Your task to perform on an android device: Open the Play Movies app and select the watchlist tab. Image 0: 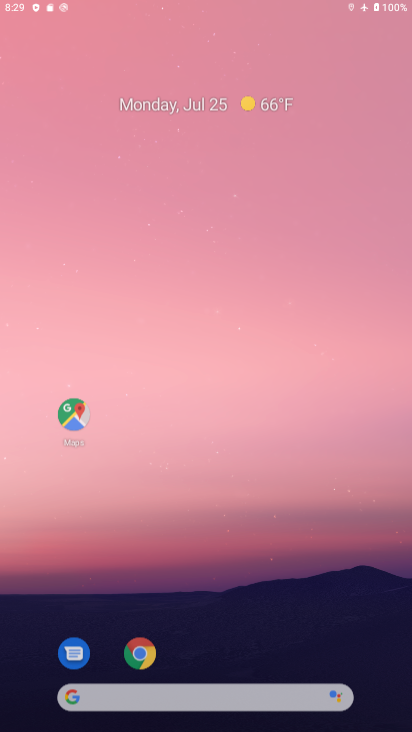
Step 0: click (122, 297)
Your task to perform on an android device: Open the Play Movies app and select the watchlist tab. Image 1: 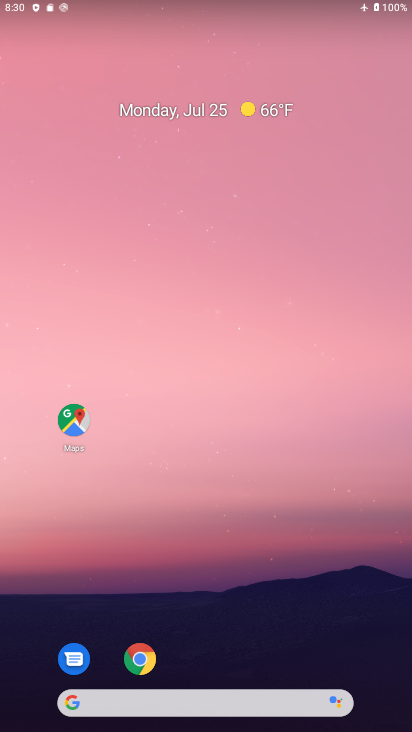
Step 1: drag from (219, 471) to (174, 134)
Your task to perform on an android device: Open the Play Movies app and select the watchlist tab. Image 2: 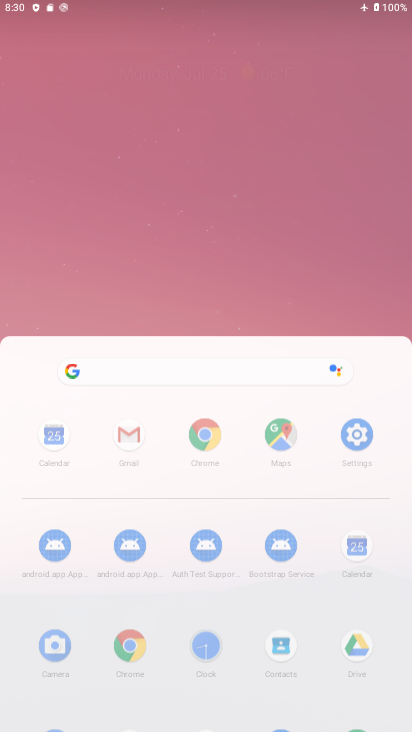
Step 2: drag from (254, 512) to (231, 142)
Your task to perform on an android device: Open the Play Movies app and select the watchlist tab. Image 3: 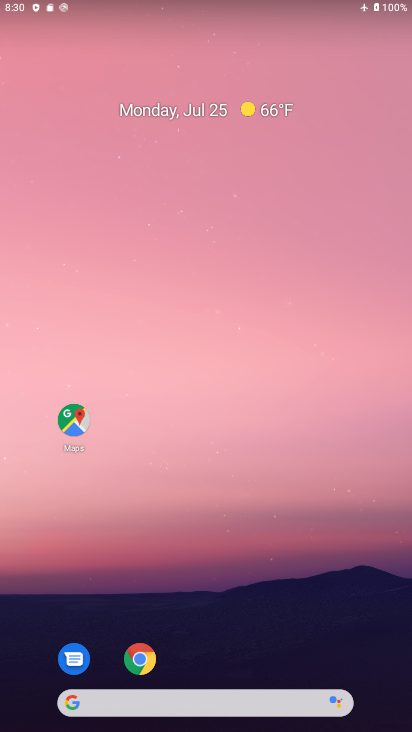
Step 3: drag from (245, 584) to (184, 200)
Your task to perform on an android device: Open the Play Movies app and select the watchlist tab. Image 4: 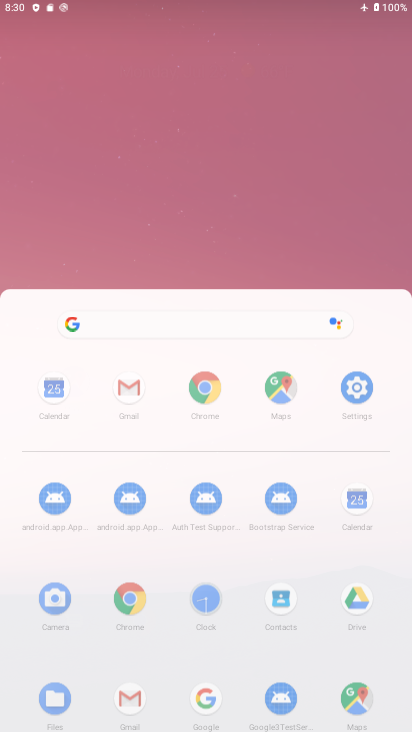
Step 4: drag from (237, 551) to (185, 91)
Your task to perform on an android device: Open the Play Movies app and select the watchlist tab. Image 5: 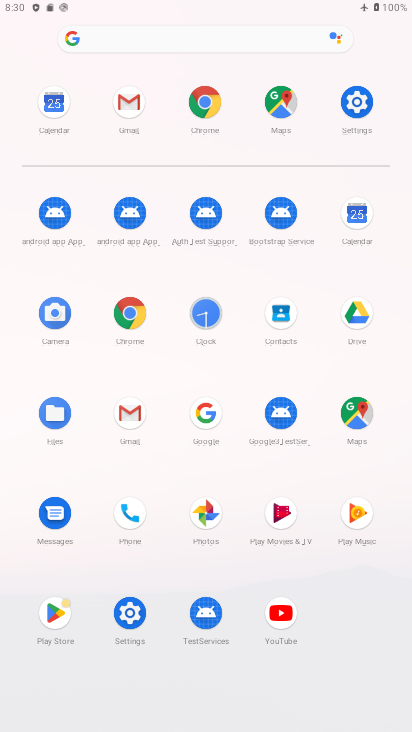
Step 5: click (263, 501)
Your task to perform on an android device: Open the Play Movies app and select the watchlist tab. Image 6: 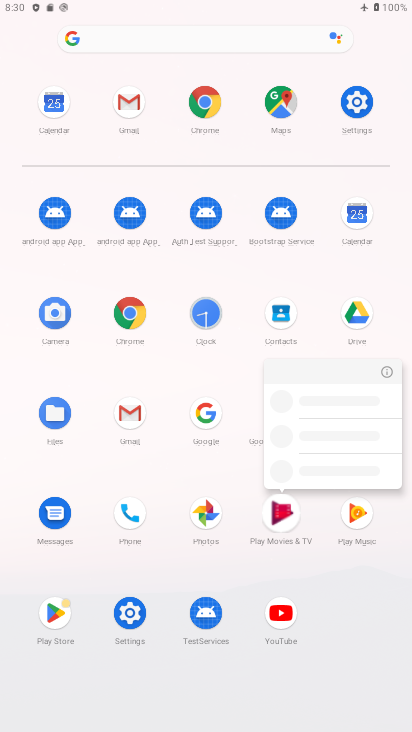
Step 6: click (275, 508)
Your task to perform on an android device: Open the Play Movies app and select the watchlist tab. Image 7: 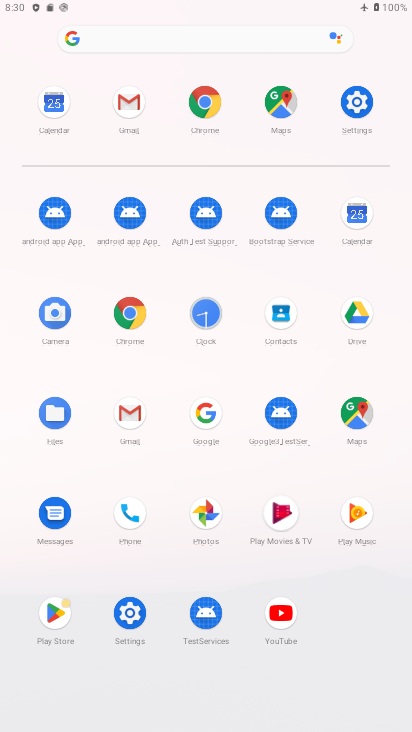
Step 7: click (276, 512)
Your task to perform on an android device: Open the Play Movies app and select the watchlist tab. Image 8: 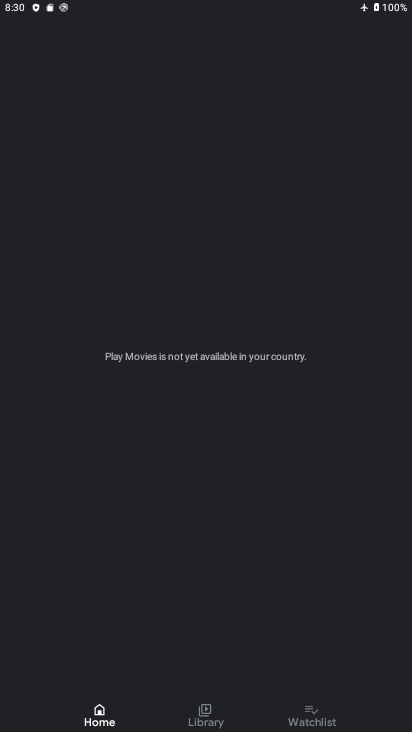
Step 8: click (286, 711)
Your task to perform on an android device: Open the Play Movies app and select the watchlist tab. Image 9: 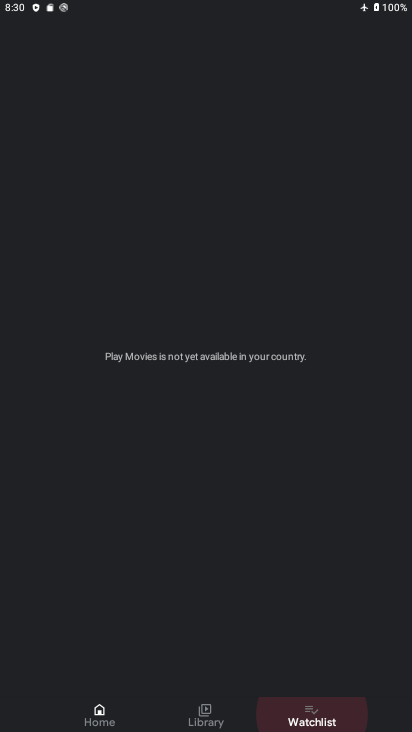
Step 9: click (297, 717)
Your task to perform on an android device: Open the Play Movies app and select the watchlist tab. Image 10: 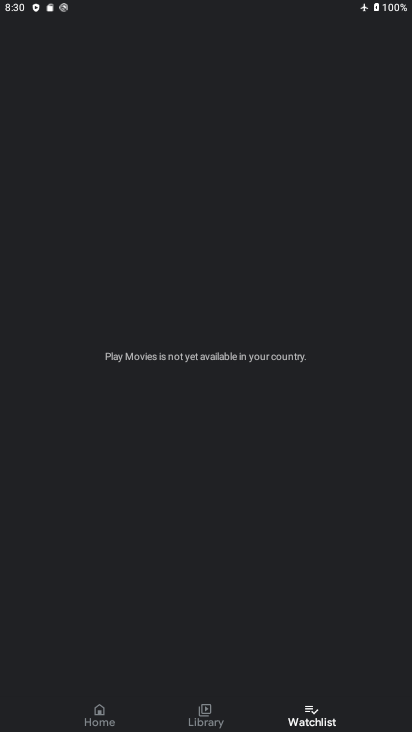
Step 10: click (306, 726)
Your task to perform on an android device: Open the Play Movies app and select the watchlist tab. Image 11: 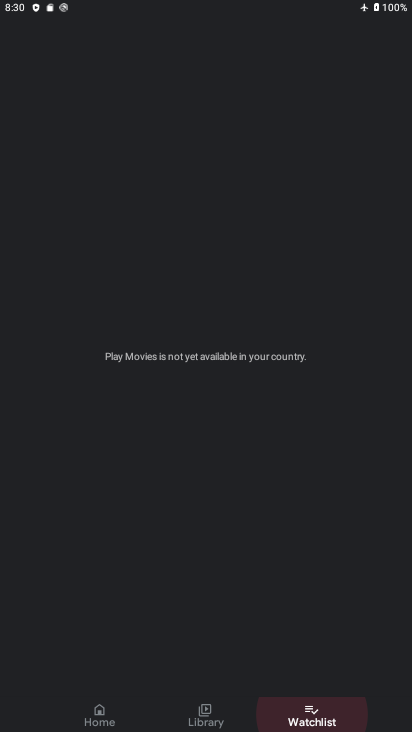
Step 11: click (308, 725)
Your task to perform on an android device: Open the Play Movies app and select the watchlist tab. Image 12: 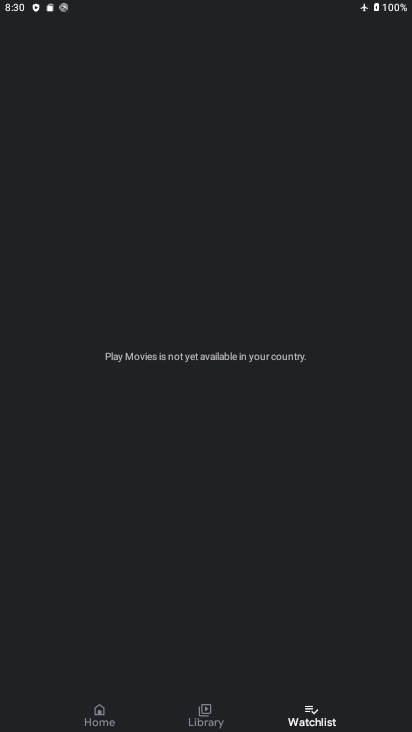
Step 12: task complete